Your task to perform on an android device: Show me popular games on the Play Store Image 0: 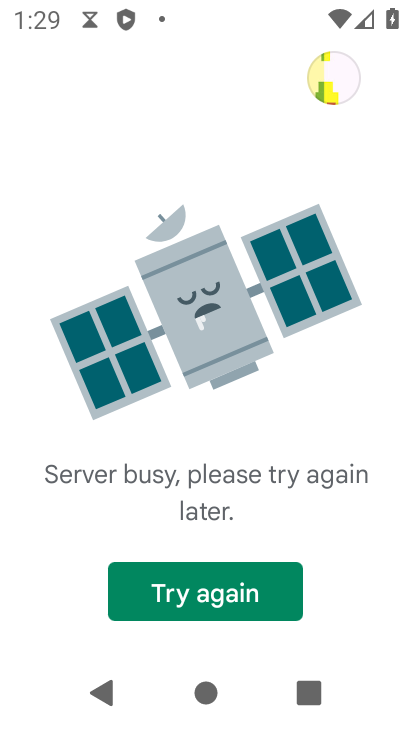
Step 0: press home button
Your task to perform on an android device: Show me popular games on the Play Store Image 1: 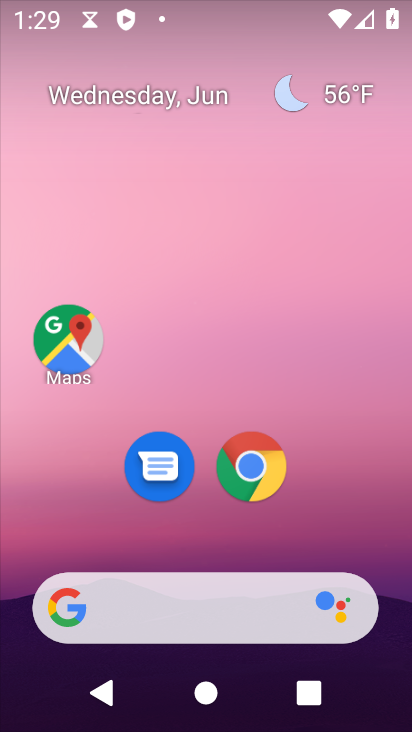
Step 1: drag from (100, 601) to (179, 162)
Your task to perform on an android device: Show me popular games on the Play Store Image 2: 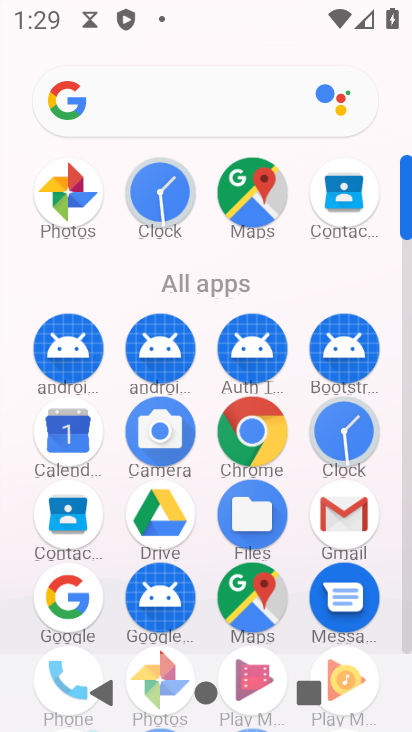
Step 2: drag from (100, 617) to (173, 385)
Your task to perform on an android device: Show me popular games on the Play Store Image 3: 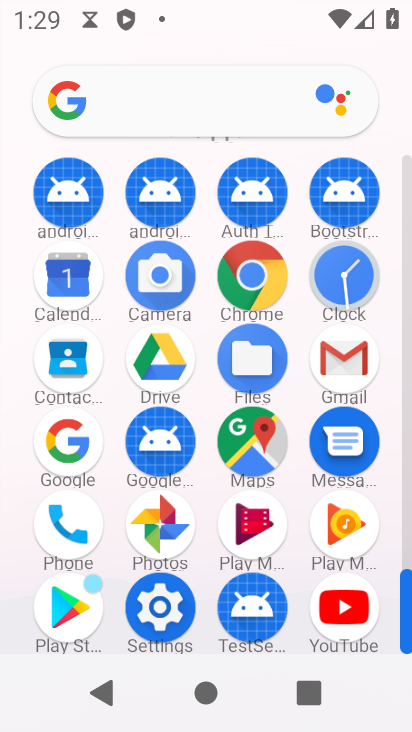
Step 3: click (61, 599)
Your task to perform on an android device: Show me popular games on the Play Store Image 4: 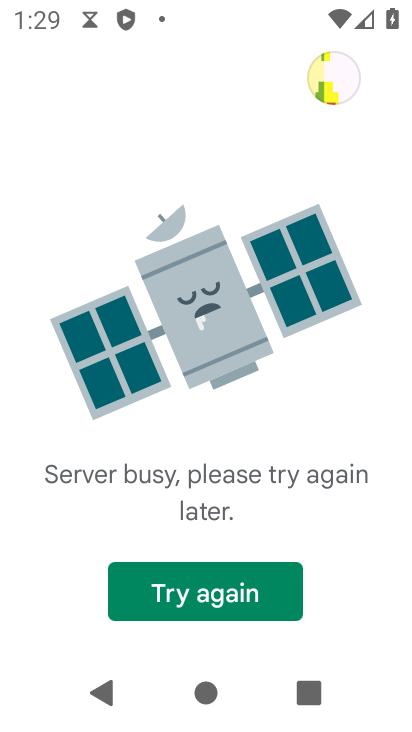
Step 4: task complete